Your task to perform on an android device: Search for flights from Tokyo to NYC Image 0: 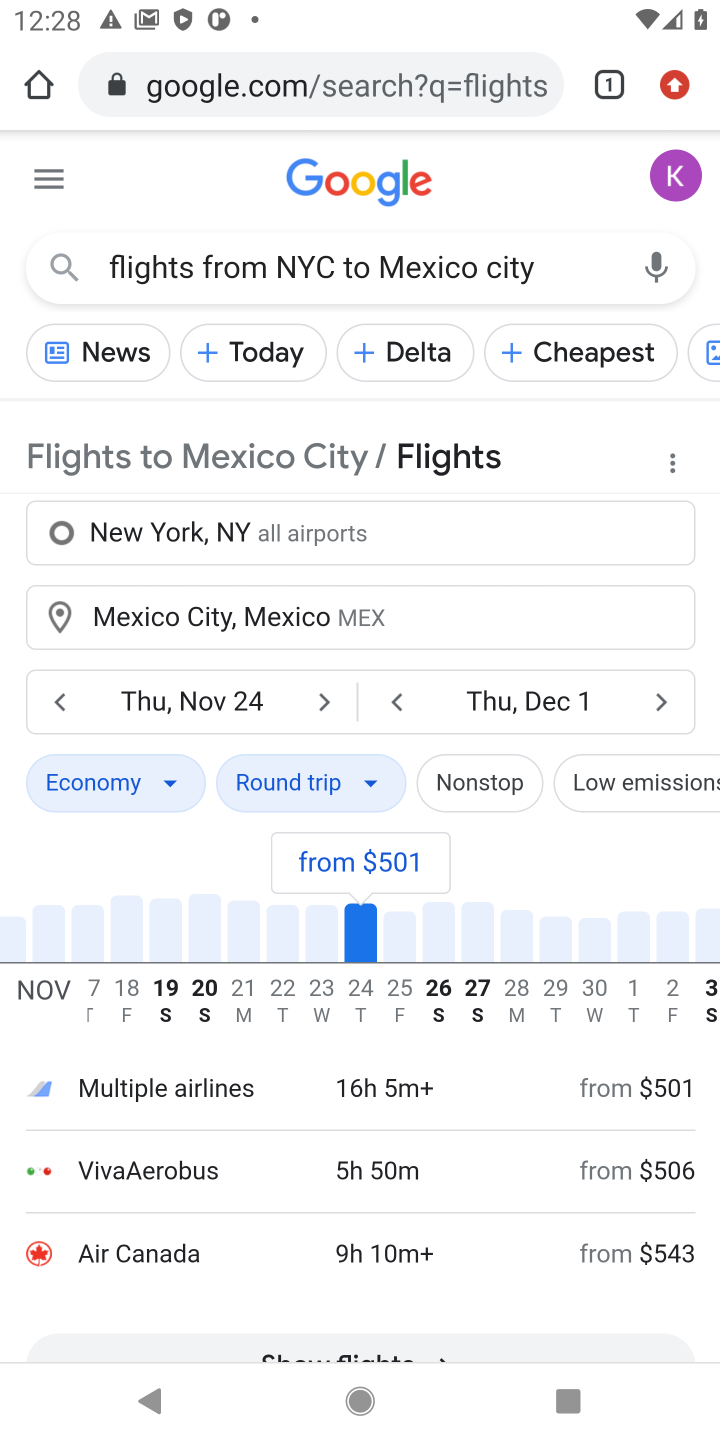
Step 0: press home button
Your task to perform on an android device: Search for flights from Tokyo to NYC Image 1: 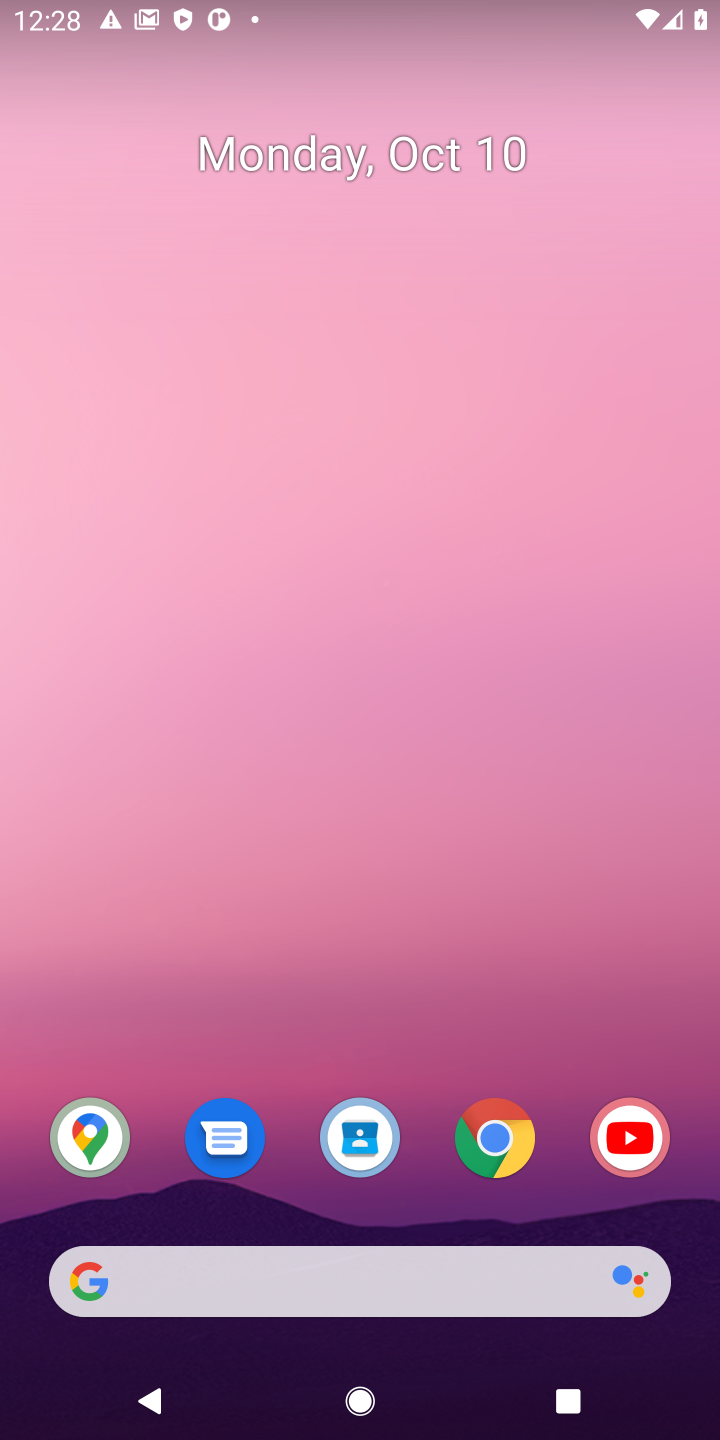
Step 1: click (505, 1145)
Your task to perform on an android device: Search for flights from Tokyo to NYC Image 2: 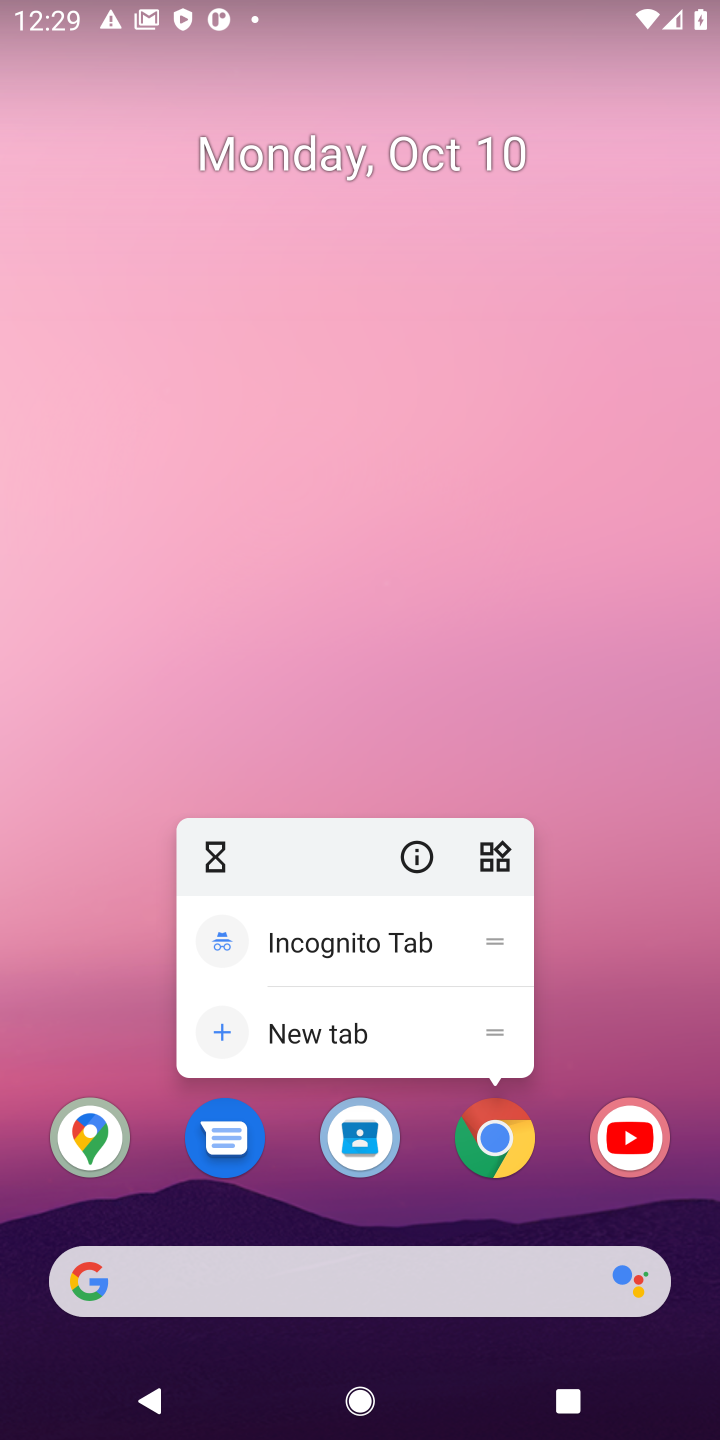
Step 2: click (505, 1145)
Your task to perform on an android device: Search for flights from Tokyo to NYC Image 3: 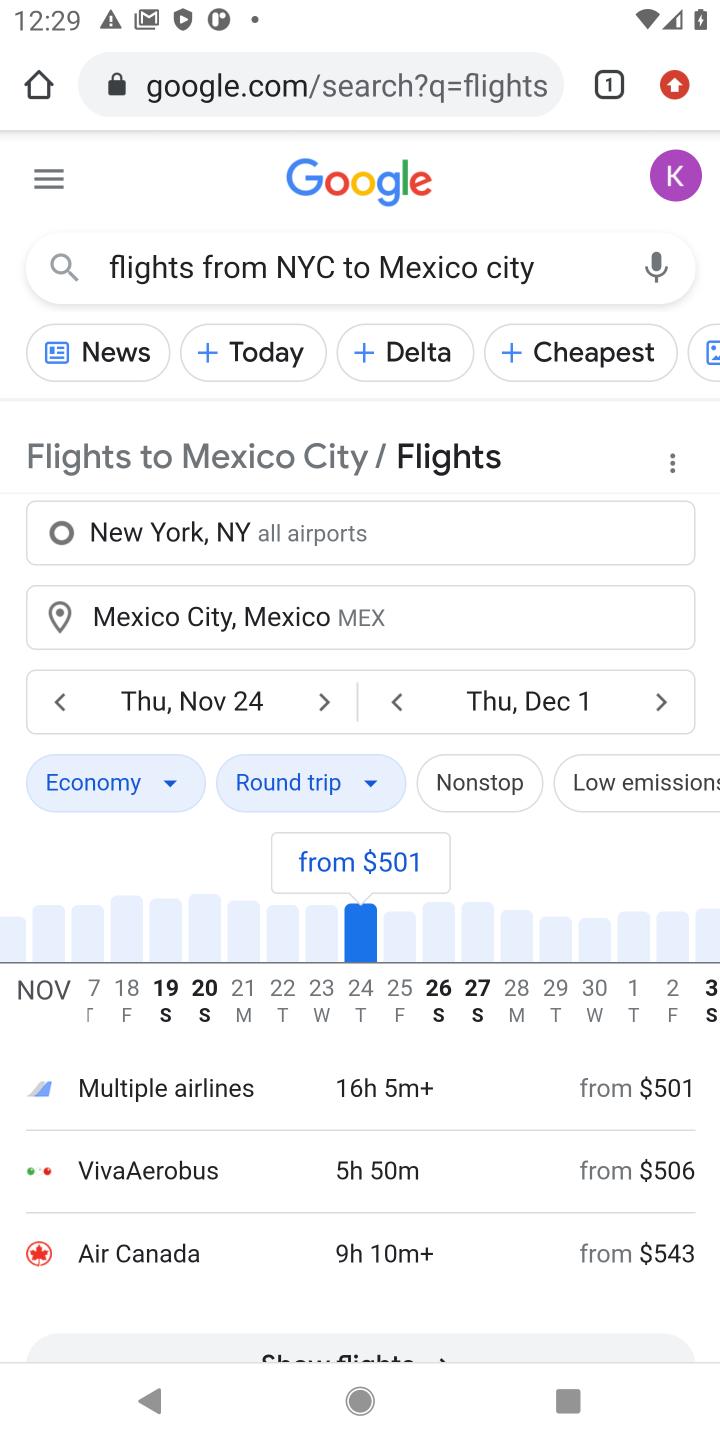
Step 3: drag from (571, 1439) to (515, 1300)
Your task to perform on an android device: Search for flights from Tokyo to NYC Image 4: 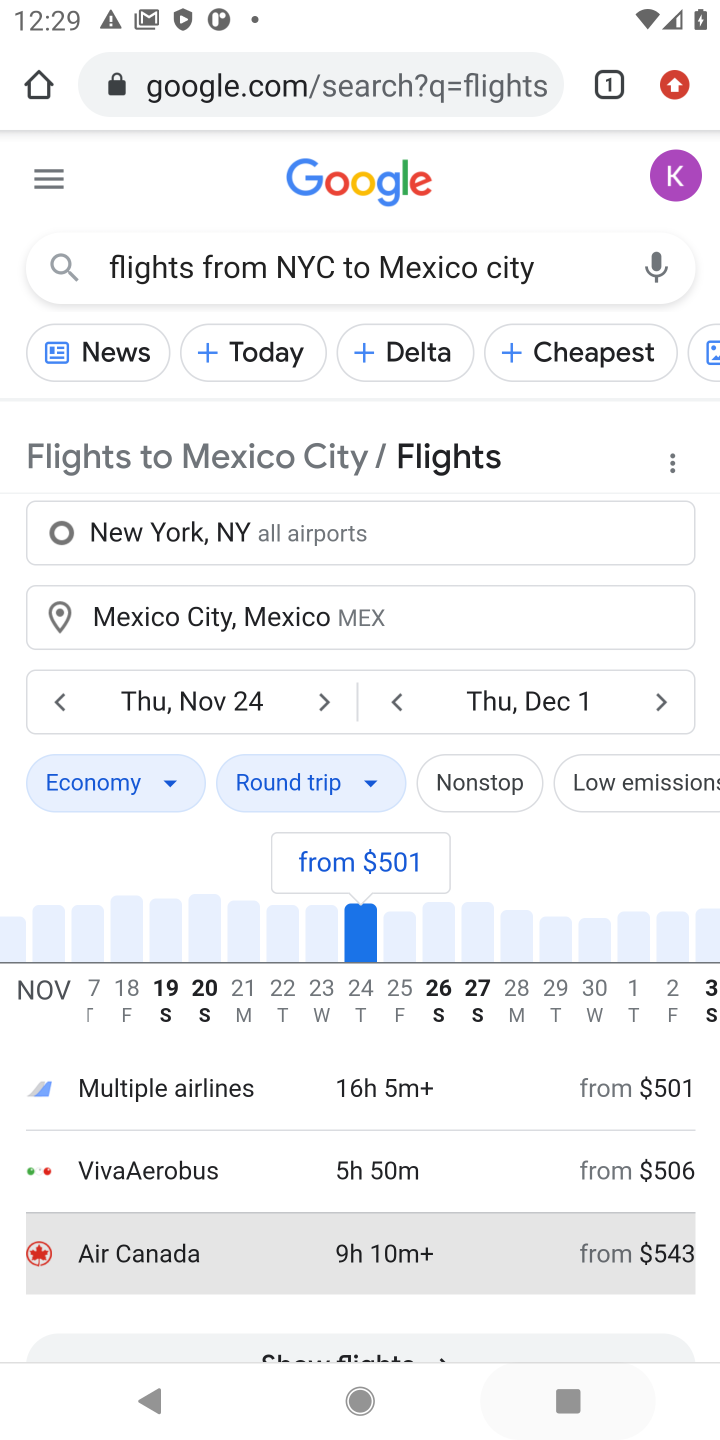
Step 4: click (563, 266)
Your task to perform on an android device: Search for flights from Tokyo to NYC Image 5: 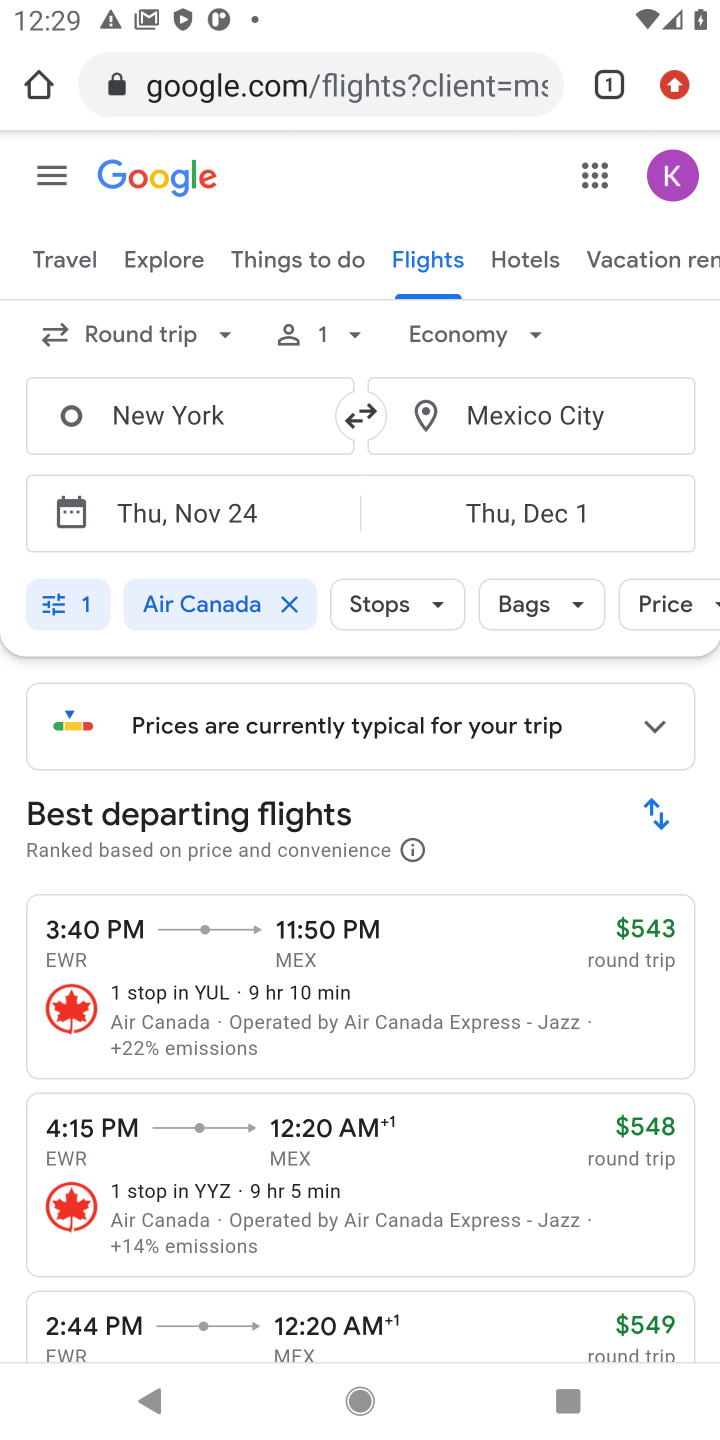
Step 5: task complete